Your task to perform on an android device: turn off notifications in google photos Image 0: 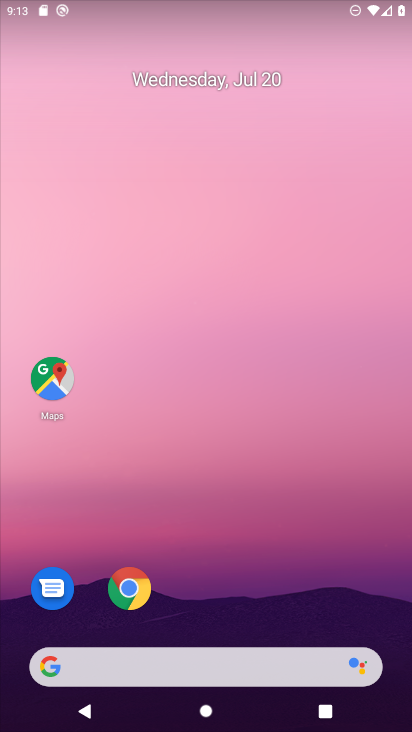
Step 0: drag from (196, 607) to (245, 44)
Your task to perform on an android device: turn off notifications in google photos Image 1: 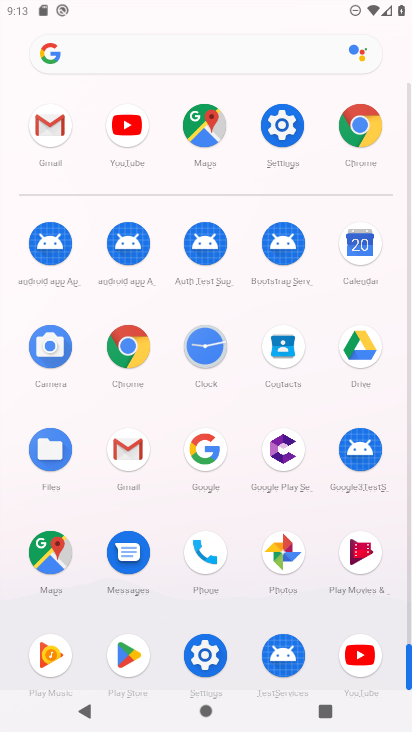
Step 1: click (201, 669)
Your task to perform on an android device: turn off notifications in google photos Image 2: 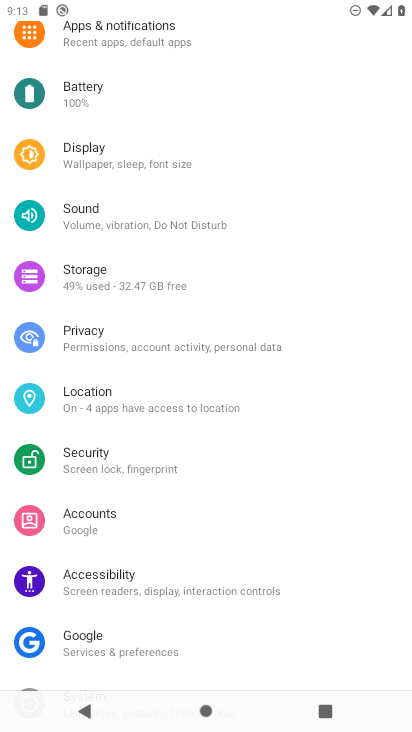
Step 2: click (203, 49)
Your task to perform on an android device: turn off notifications in google photos Image 3: 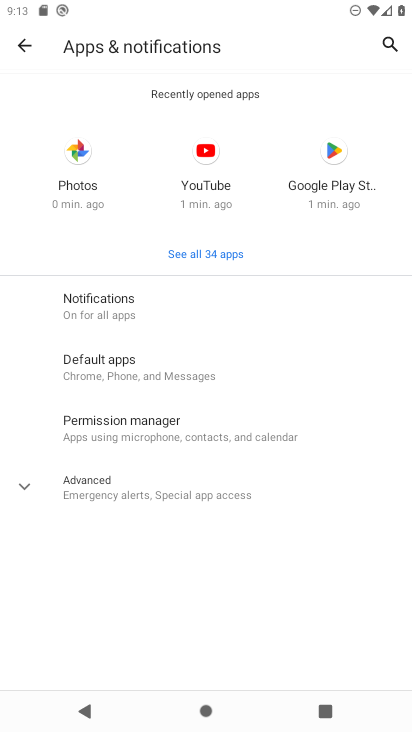
Step 3: click (82, 204)
Your task to perform on an android device: turn off notifications in google photos Image 4: 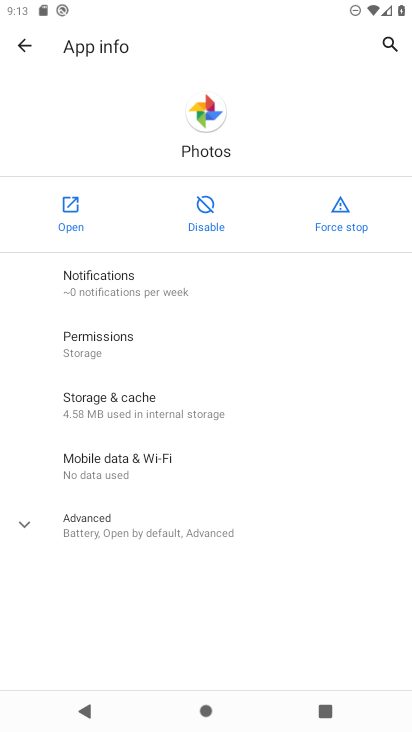
Step 4: click (211, 254)
Your task to perform on an android device: turn off notifications in google photos Image 5: 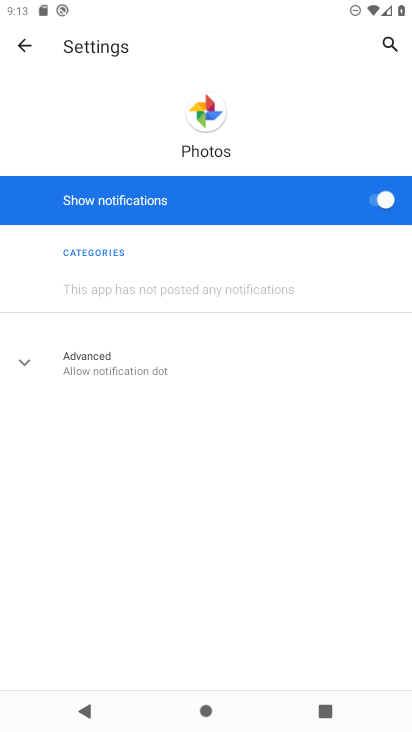
Step 5: click (380, 197)
Your task to perform on an android device: turn off notifications in google photos Image 6: 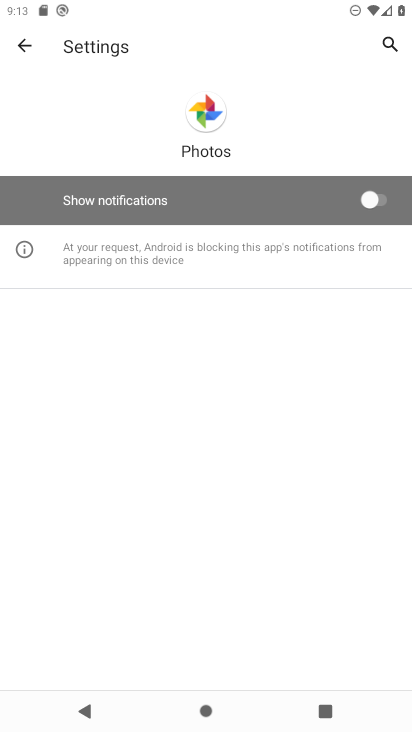
Step 6: task complete